Your task to perform on an android device: Go to settings Image 0: 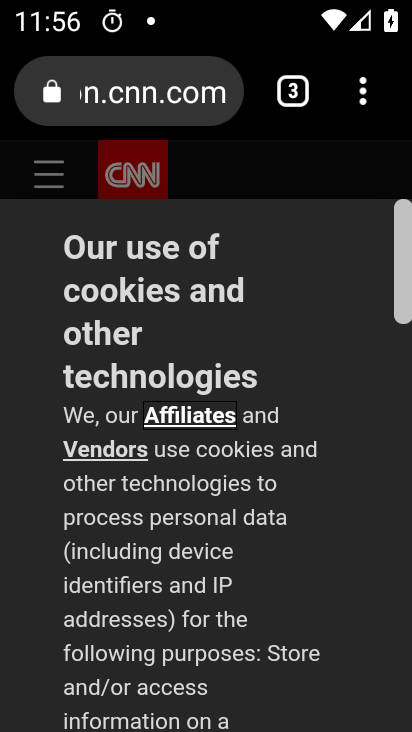
Step 0: press home button
Your task to perform on an android device: Go to settings Image 1: 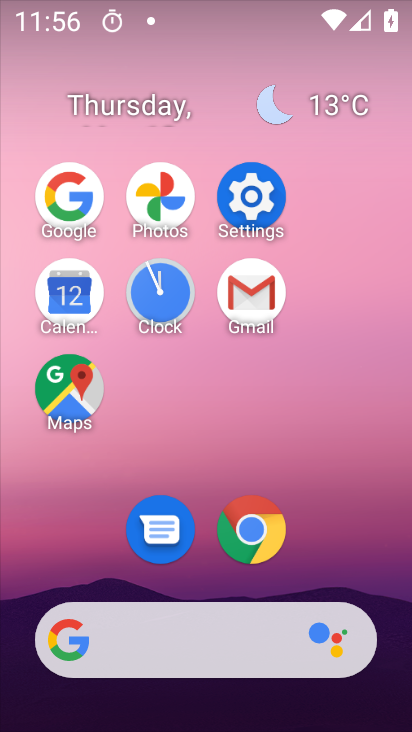
Step 1: click (258, 201)
Your task to perform on an android device: Go to settings Image 2: 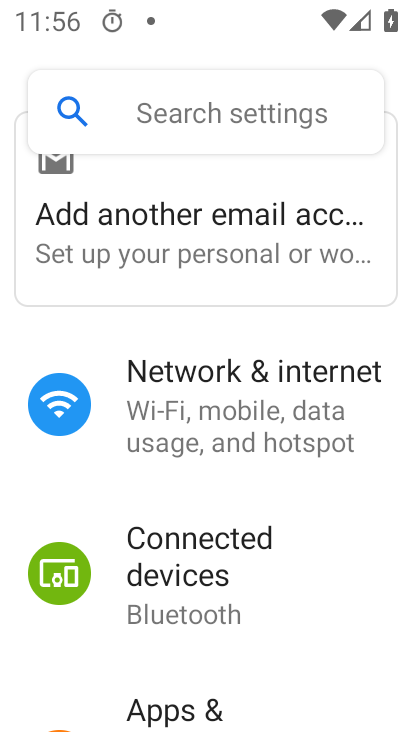
Step 2: task complete